Your task to perform on an android device: change timer sound Image 0: 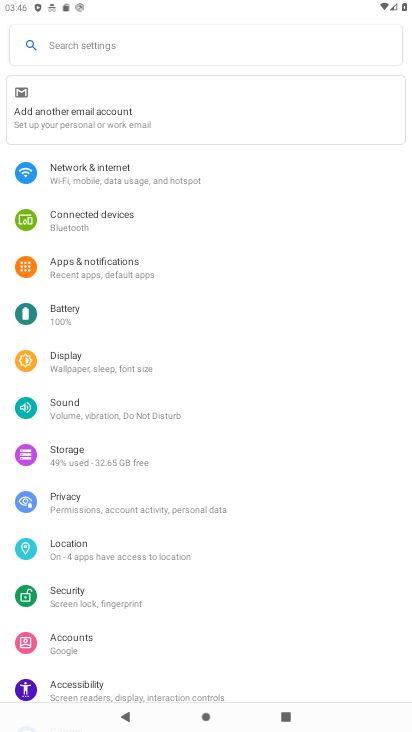
Step 0: press home button
Your task to perform on an android device: change timer sound Image 1: 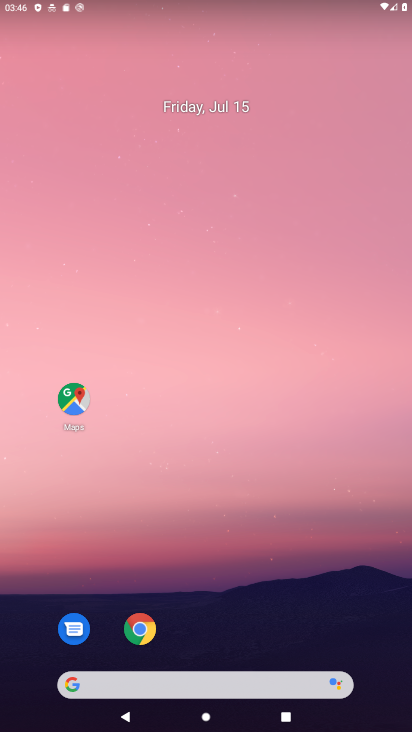
Step 1: drag from (239, 425) to (196, 127)
Your task to perform on an android device: change timer sound Image 2: 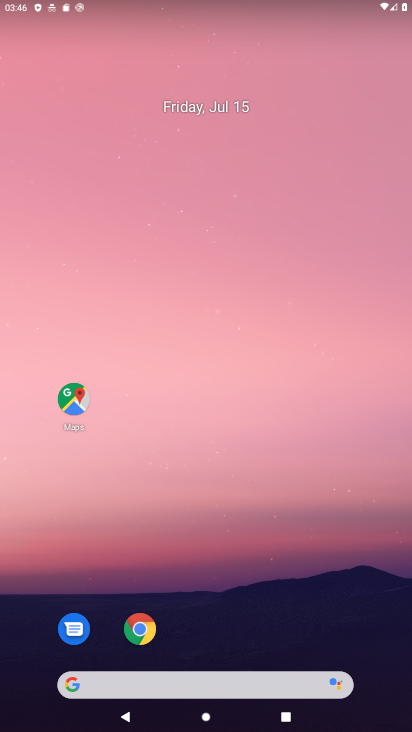
Step 2: drag from (222, 639) to (199, 176)
Your task to perform on an android device: change timer sound Image 3: 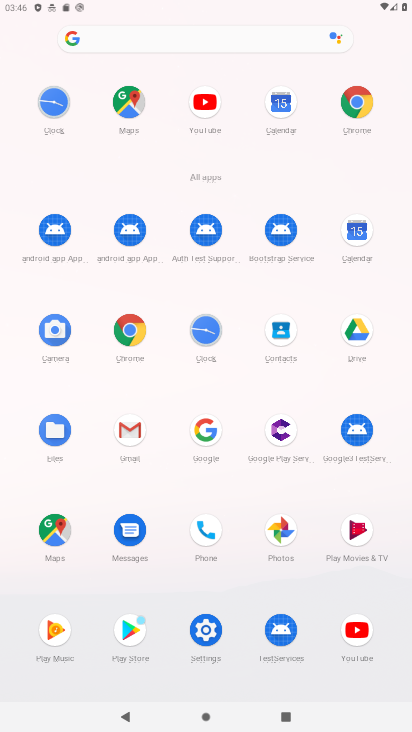
Step 3: click (207, 618)
Your task to perform on an android device: change timer sound Image 4: 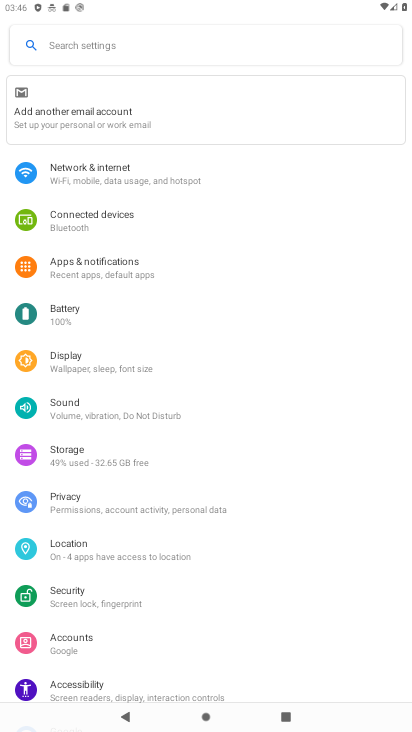
Step 4: type ""
Your task to perform on an android device: change timer sound Image 5: 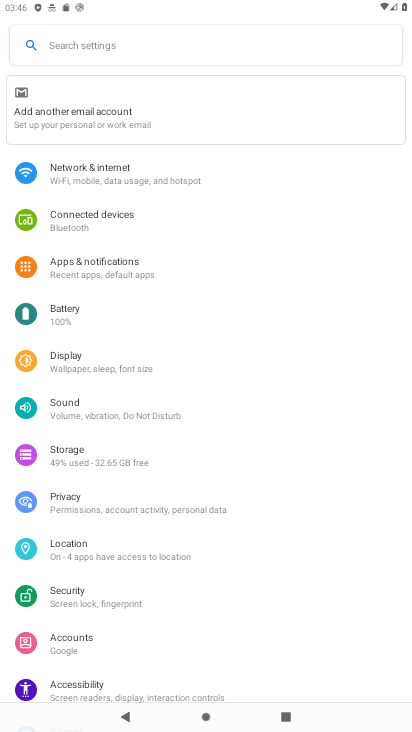
Step 5: press home button
Your task to perform on an android device: change timer sound Image 6: 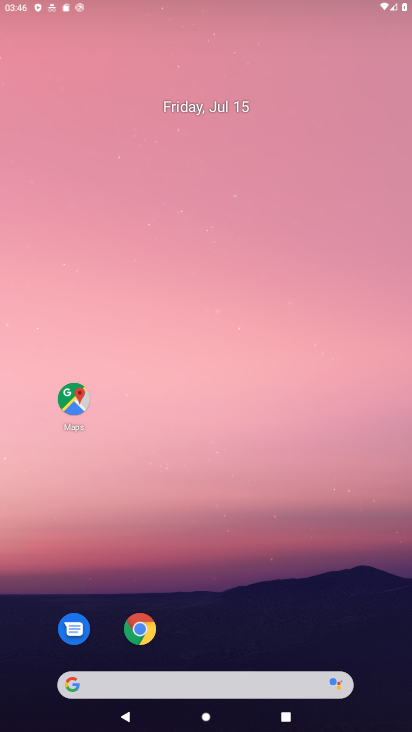
Step 6: drag from (116, 579) to (105, 65)
Your task to perform on an android device: change timer sound Image 7: 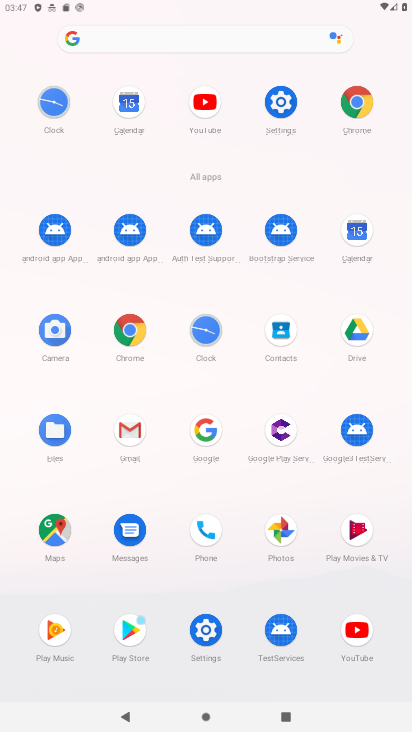
Step 7: click (203, 324)
Your task to perform on an android device: change timer sound Image 8: 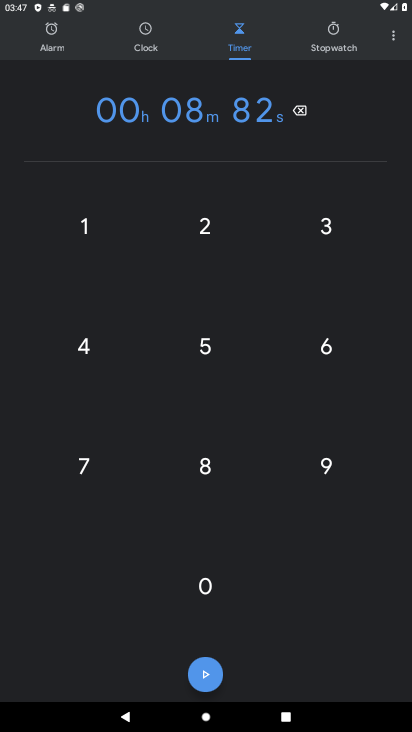
Step 8: click (397, 43)
Your task to perform on an android device: change timer sound Image 9: 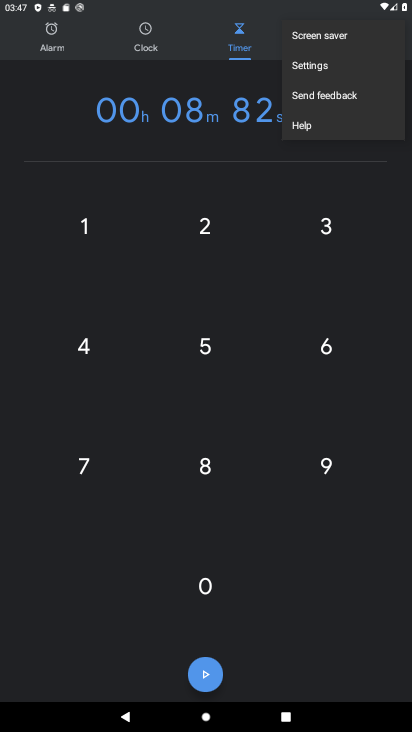
Step 9: click (299, 69)
Your task to perform on an android device: change timer sound Image 10: 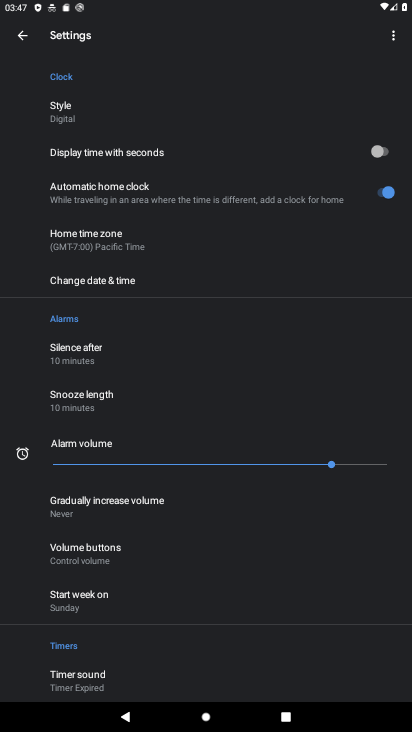
Step 10: drag from (161, 611) to (183, 455)
Your task to perform on an android device: change timer sound Image 11: 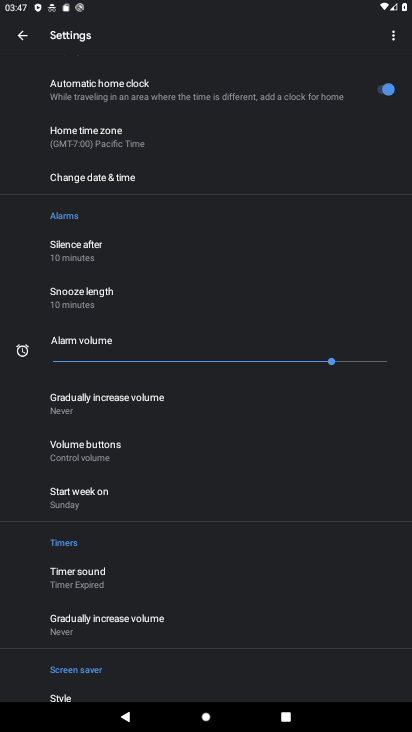
Step 11: click (47, 576)
Your task to perform on an android device: change timer sound Image 12: 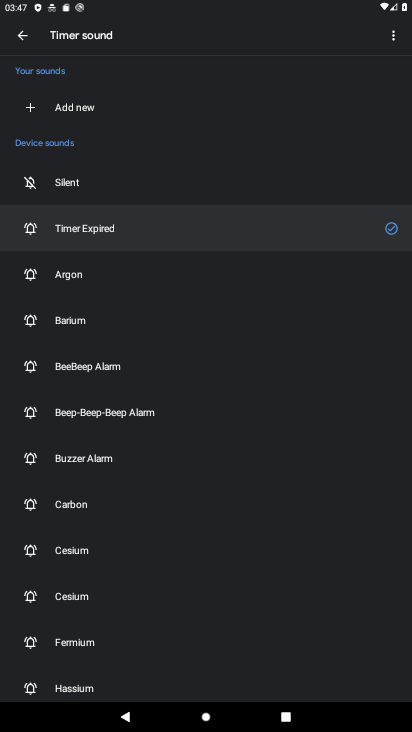
Step 12: click (75, 370)
Your task to perform on an android device: change timer sound Image 13: 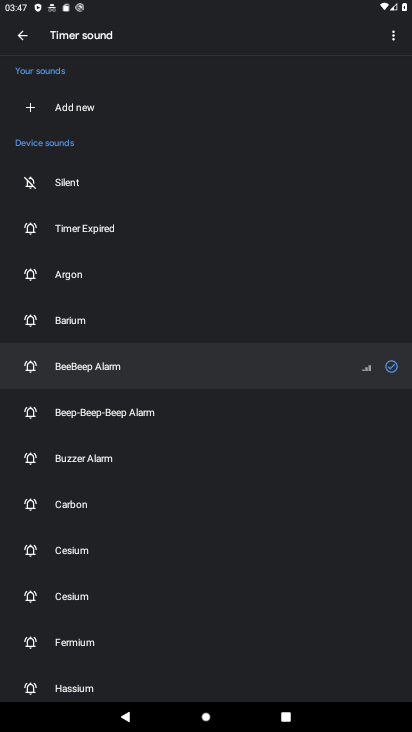
Step 13: click (394, 375)
Your task to perform on an android device: change timer sound Image 14: 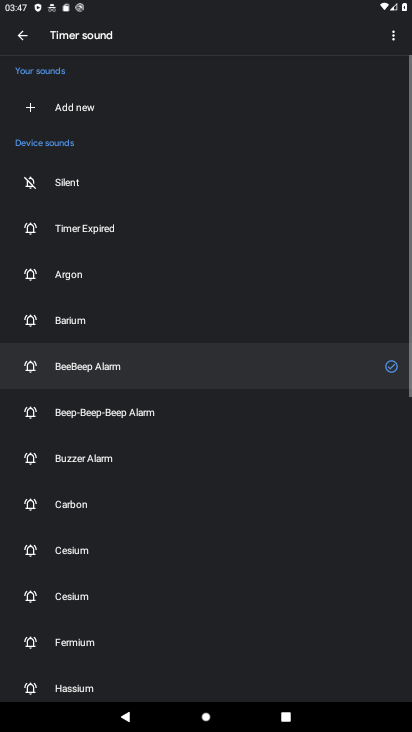
Step 14: task complete